Your task to perform on an android device: Open internet settings Image 0: 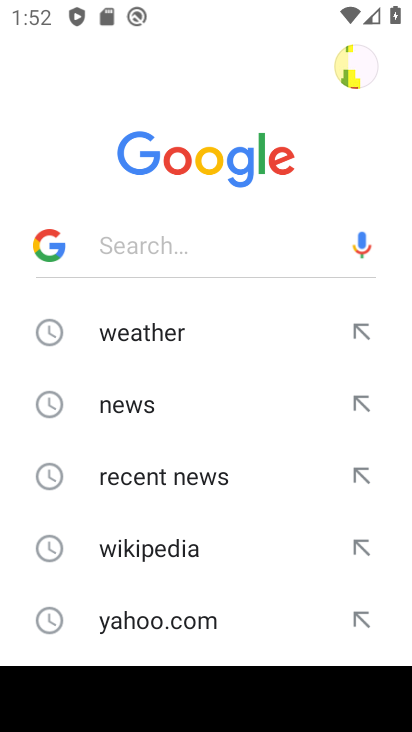
Step 0: press home button
Your task to perform on an android device: Open internet settings Image 1: 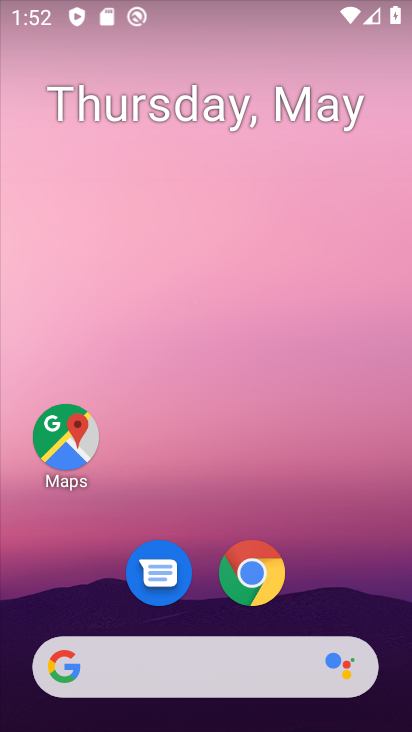
Step 1: drag from (386, 573) to (238, 105)
Your task to perform on an android device: Open internet settings Image 2: 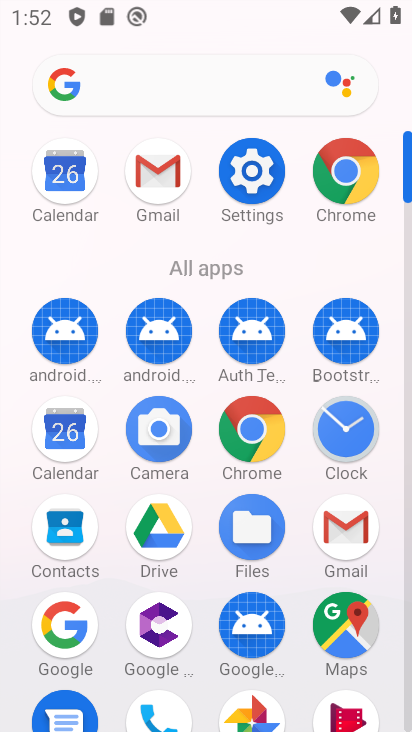
Step 2: click (246, 207)
Your task to perform on an android device: Open internet settings Image 3: 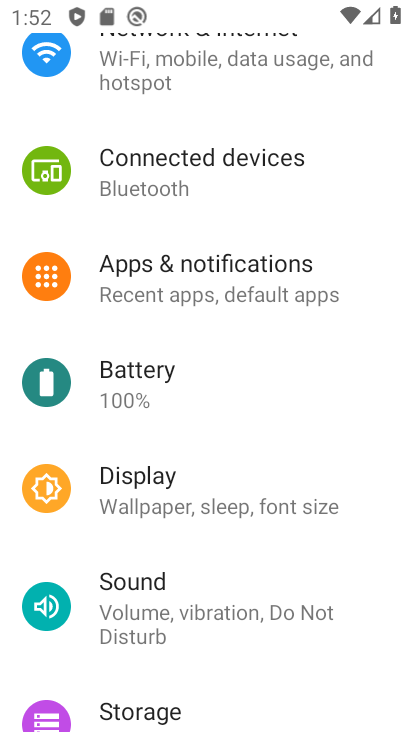
Step 3: drag from (208, 101) to (228, 505)
Your task to perform on an android device: Open internet settings Image 4: 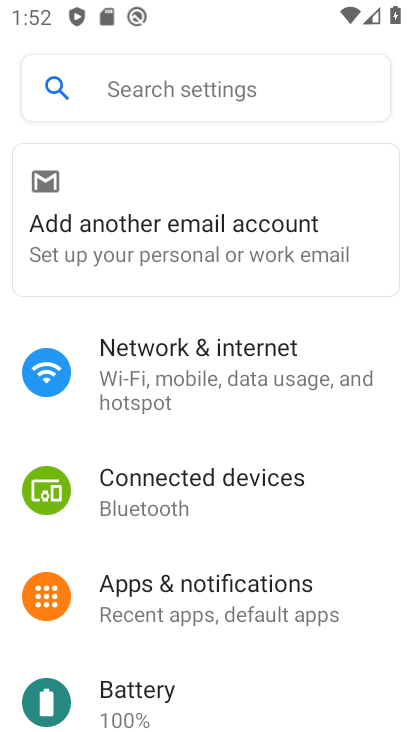
Step 4: click (213, 348)
Your task to perform on an android device: Open internet settings Image 5: 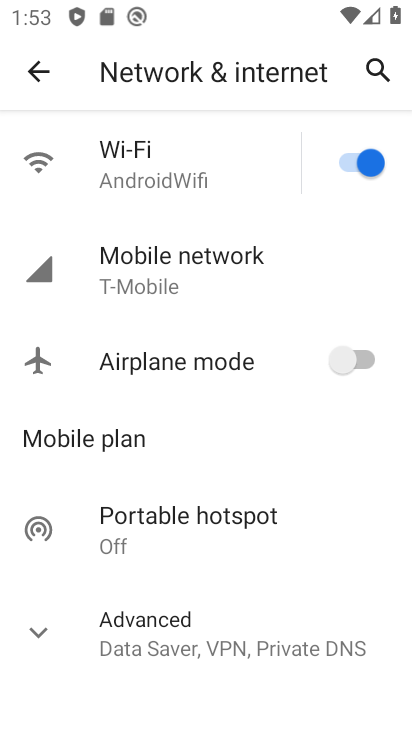
Step 5: task complete